Your task to perform on an android device: Open Amazon Image 0: 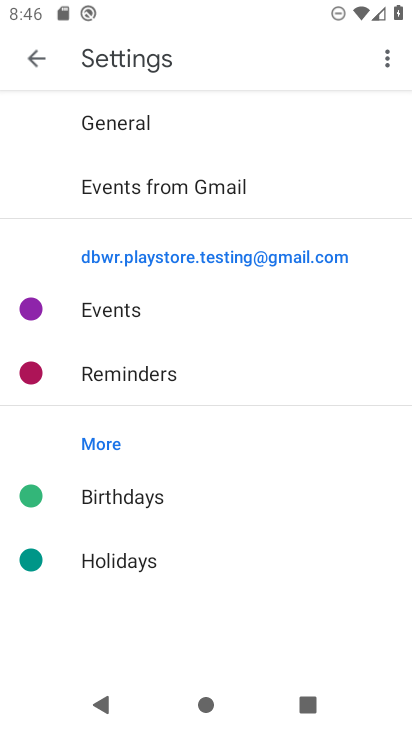
Step 0: press home button
Your task to perform on an android device: Open Amazon Image 1: 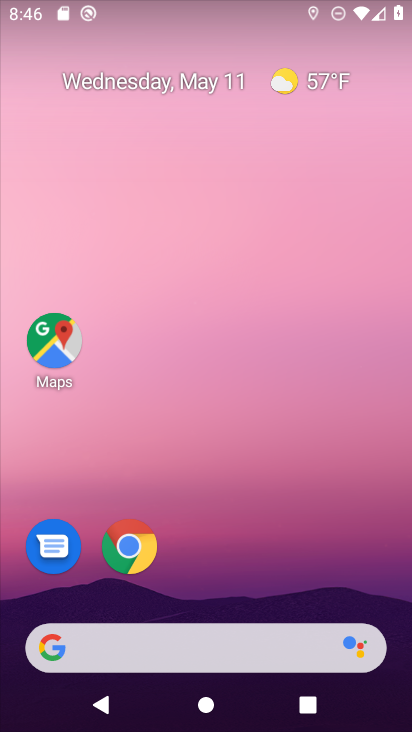
Step 1: drag from (253, 589) to (202, 176)
Your task to perform on an android device: Open Amazon Image 2: 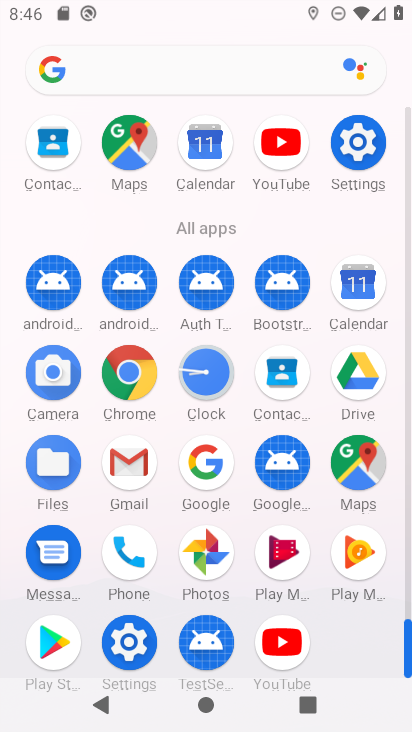
Step 2: click (110, 388)
Your task to perform on an android device: Open Amazon Image 3: 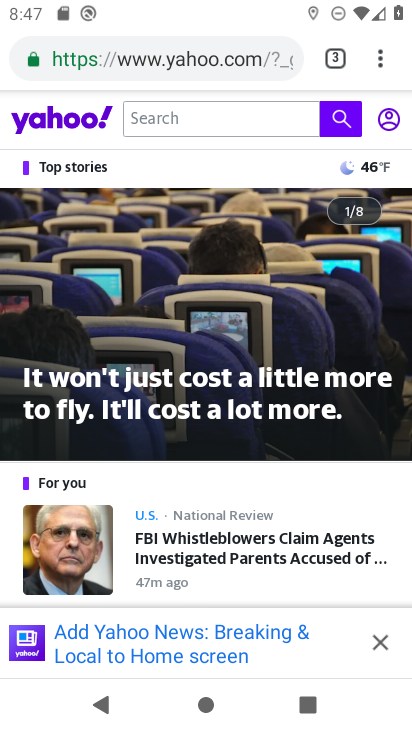
Step 3: click (335, 59)
Your task to perform on an android device: Open Amazon Image 4: 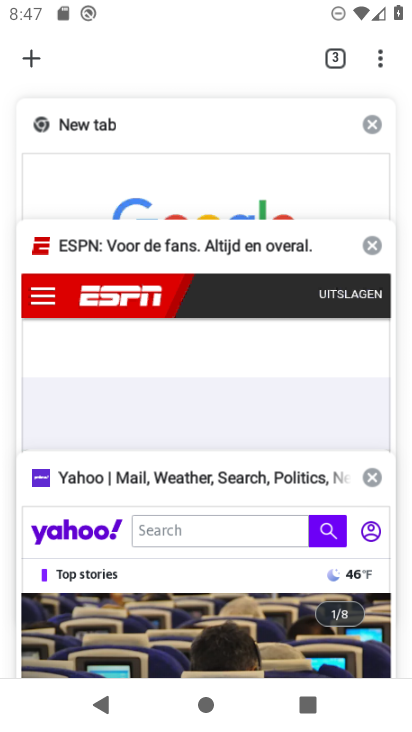
Step 4: click (31, 59)
Your task to perform on an android device: Open Amazon Image 5: 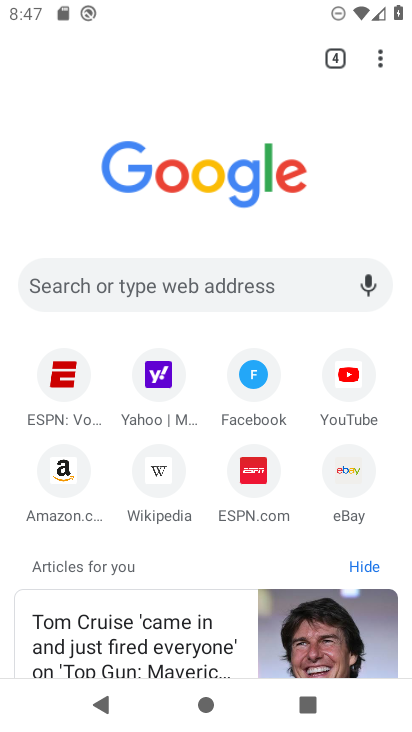
Step 5: click (76, 477)
Your task to perform on an android device: Open Amazon Image 6: 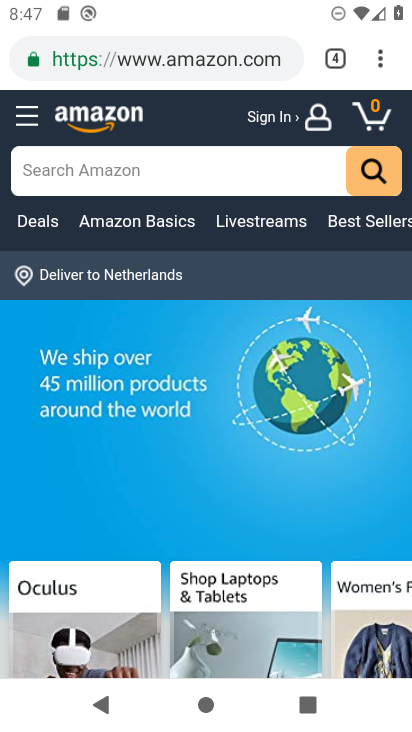
Step 6: task complete